Your task to perform on an android device: allow cookies in the chrome app Image 0: 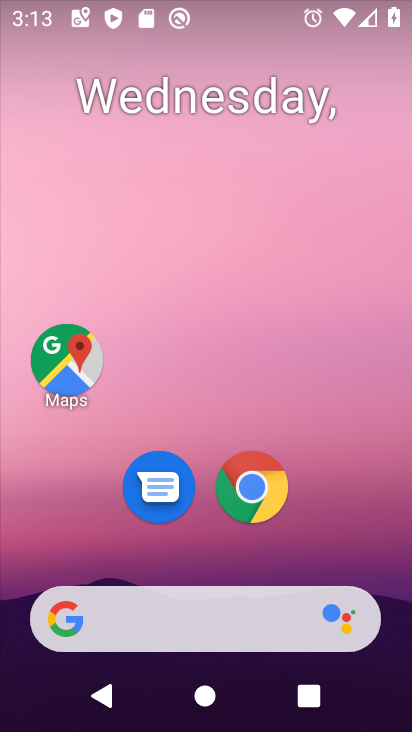
Step 0: drag from (370, 547) to (371, 169)
Your task to perform on an android device: allow cookies in the chrome app Image 1: 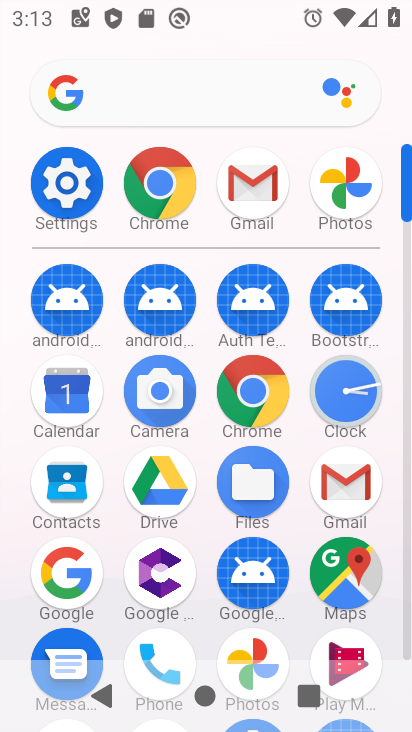
Step 1: click (265, 406)
Your task to perform on an android device: allow cookies in the chrome app Image 2: 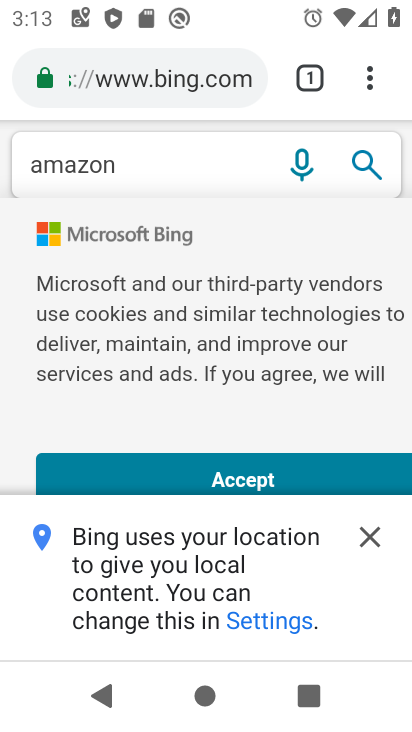
Step 2: click (369, 85)
Your task to perform on an android device: allow cookies in the chrome app Image 3: 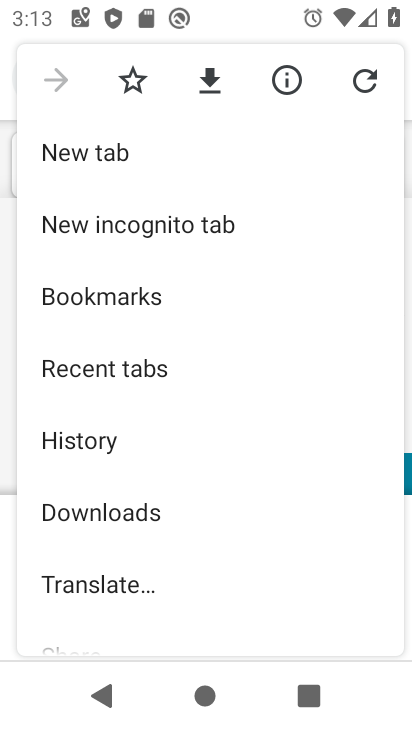
Step 3: drag from (287, 430) to (286, 250)
Your task to perform on an android device: allow cookies in the chrome app Image 4: 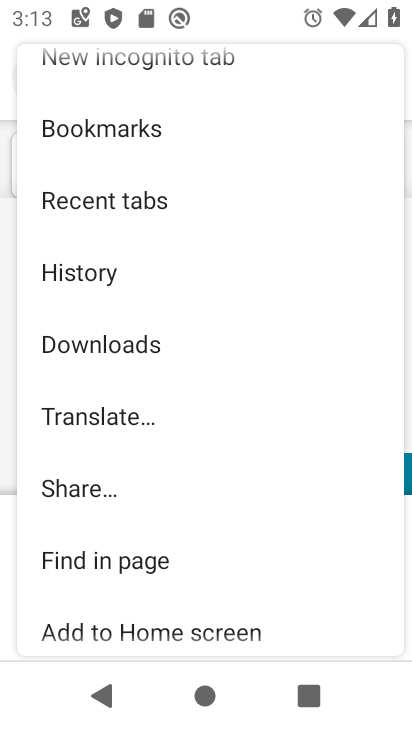
Step 4: drag from (252, 433) to (239, 237)
Your task to perform on an android device: allow cookies in the chrome app Image 5: 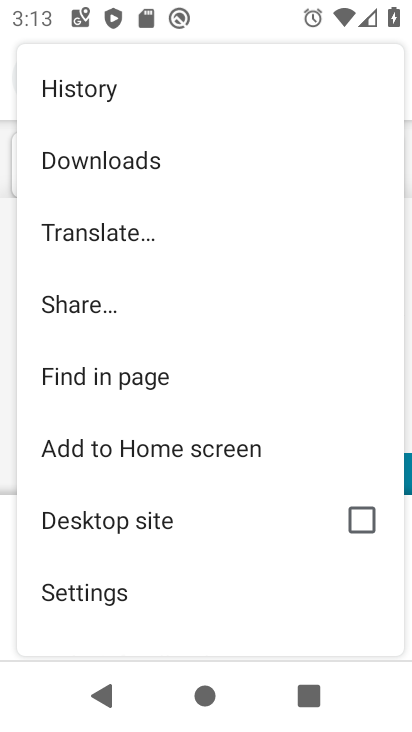
Step 5: drag from (251, 504) to (265, 278)
Your task to perform on an android device: allow cookies in the chrome app Image 6: 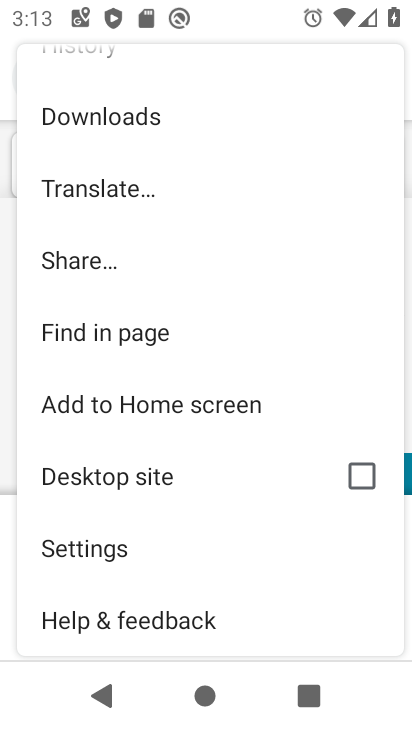
Step 6: click (116, 559)
Your task to perform on an android device: allow cookies in the chrome app Image 7: 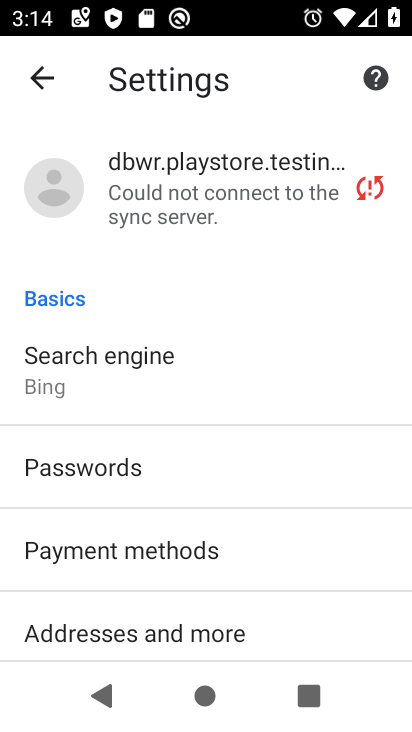
Step 7: drag from (339, 518) to (345, 359)
Your task to perform on an android device: allow cookies in the chrome app Image 8: 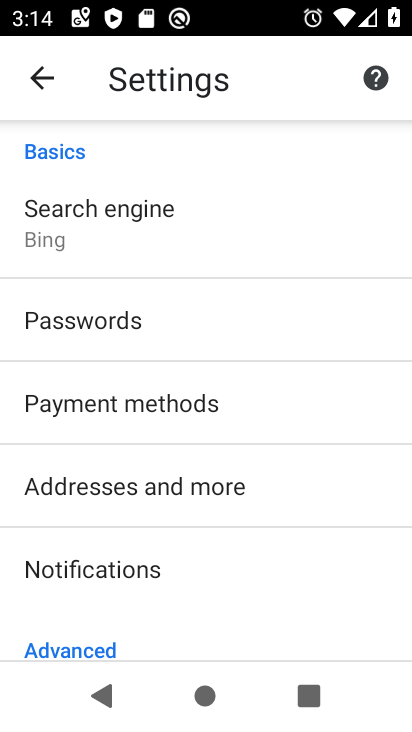
Step 8: drag from (347, 553) to (352, 358)
Your task to perform on an android device: allow cookies in the chrome app Image 9: 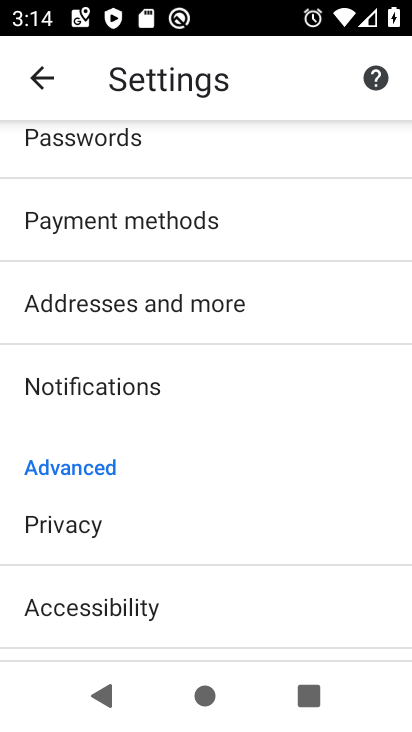
Step 9: drag from (378, 546) to (357, 353)
Your task to perform on an android device: allow cookies in the chrome app Image 10: 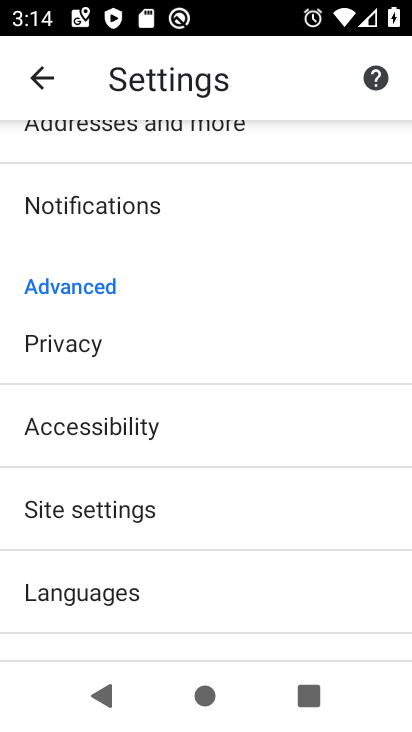
Step 10: drag from (331, 520) to (328, 387)
Your task to perform on an android device: allow cookies in the chrome app Image 11: 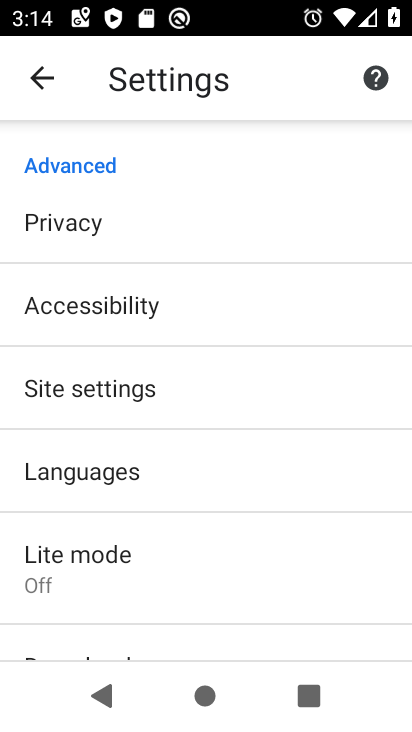
Step 11: drag from (308, 512) to (310, 411)
Your task to perform on an android device: allow cookies in the chrome app Image 12: 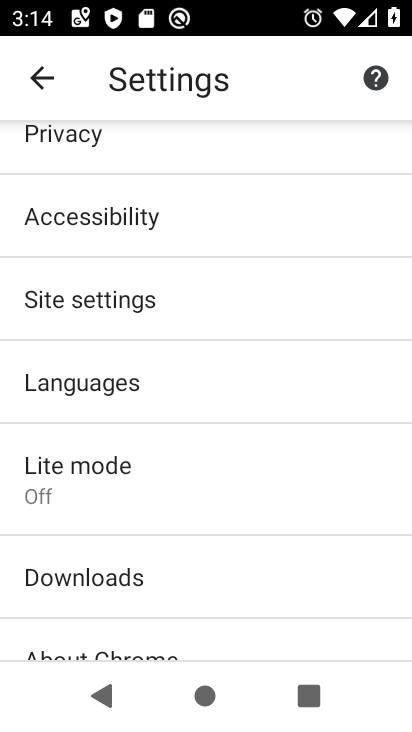
Step 12: click (252, 297)
Your task to perform on an android device: allow cookies in the chrome app Image 13: 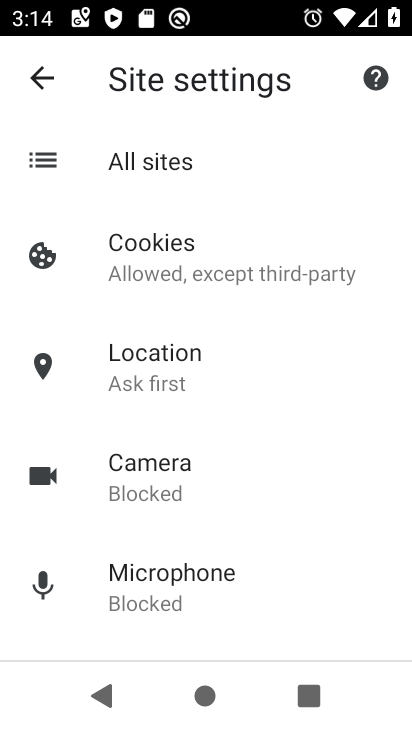
Step 13: click (289, 273)
Your task to perform on an android device: allow cookies in the chrome app Image 14: 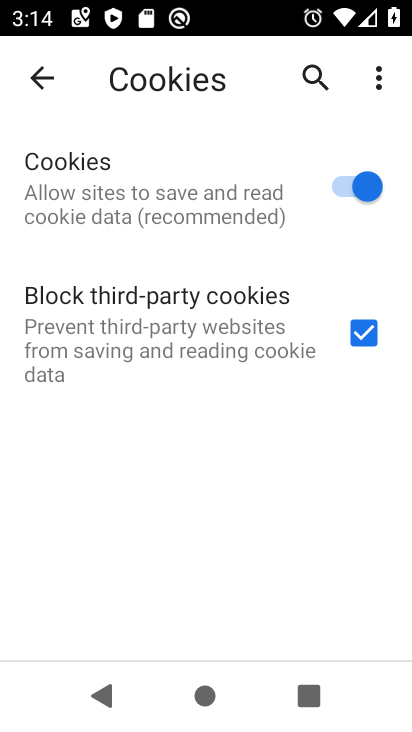
Step 14: task complete